Your task to perform on an android device: Is it going to rain tomorrow? Image 0: 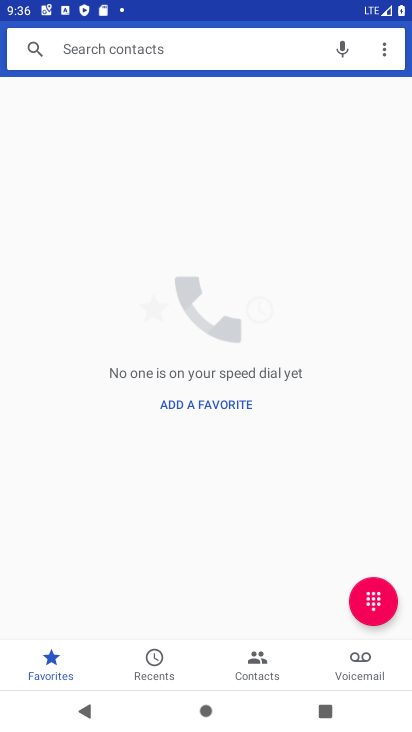
Step 0: press home button
Your task to perform on an android device: Is it going to rain tomorrow? Image 1: 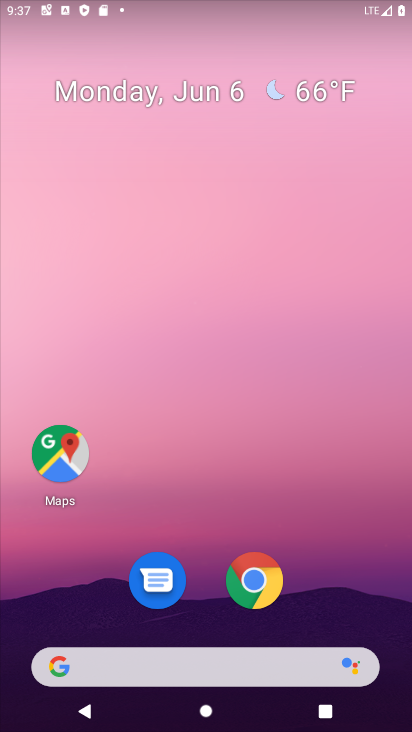
Step 1: drag from (328, 571) to (376, 33)
Your task to perform on an android device: Is it going to rain tomorrow? Image 2: 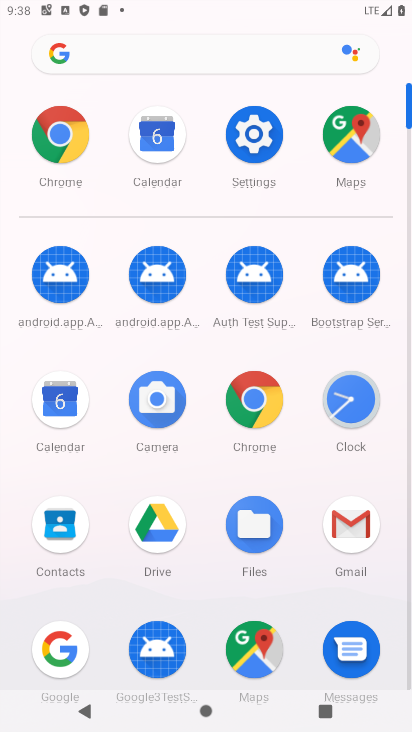
Step 2: click (149, 138)
Your task to perform on an android device: Is it going to rain tomorrow? Image 3: 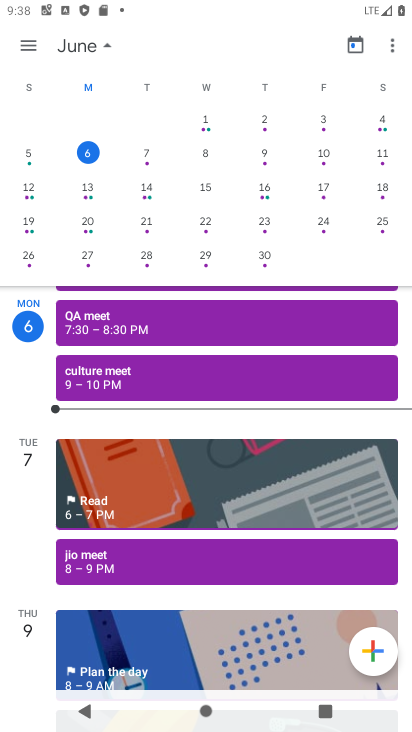
Step 3: press home button
Your task to perform on an android device: Is it going to rain tomorrow? Image 4: 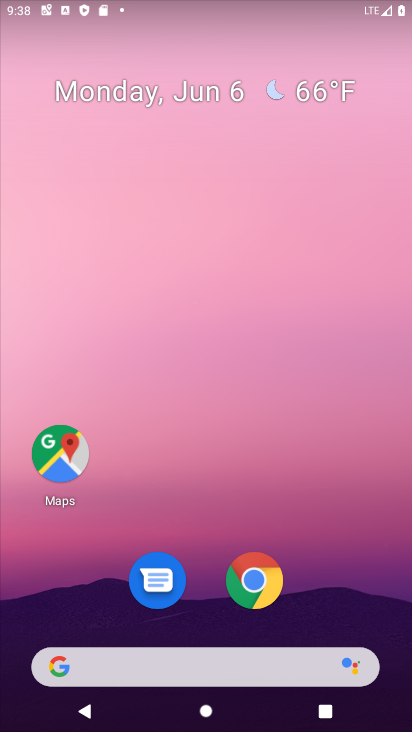
Step 4: click (323, 95)
Your task to perform on an android device: Is it going to rain tomorrow? Image 5: 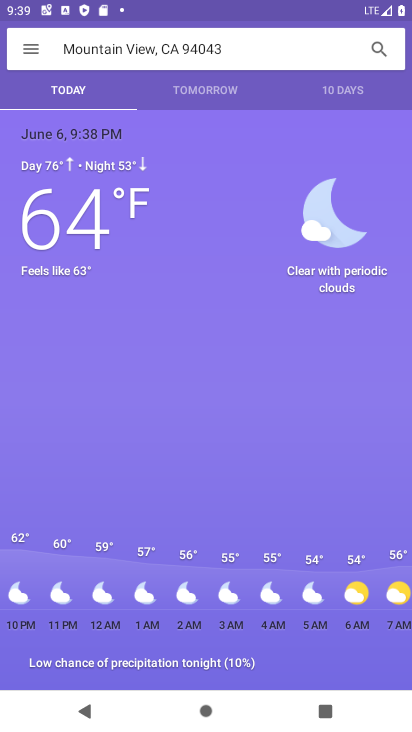
Step 5: click (322, 96)
Your task to perform on an android device: Is it going to rain tomorrow? Image 6: 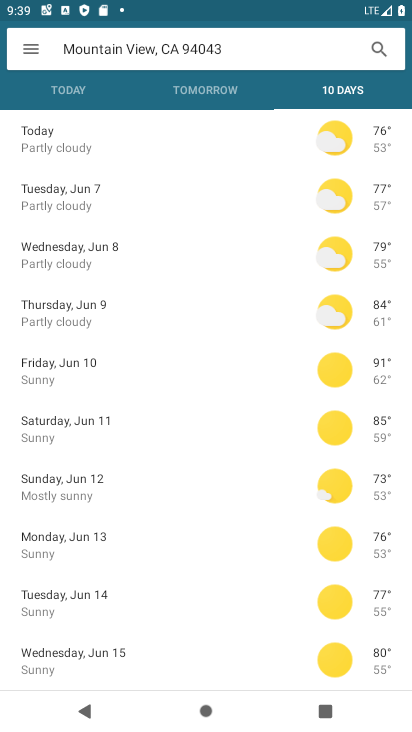
Step 6: task complete